Your task to perform on an android device: see creations saved in the google photos Image 0: 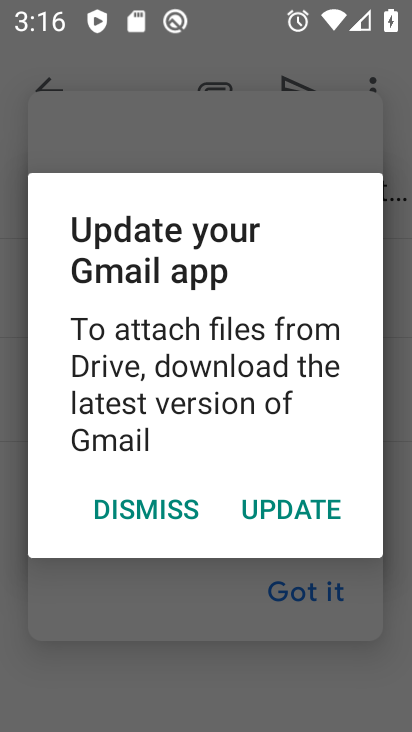
Step 0: press home button
Your task to perform on an android device: see creations saved in the google photos Image 1: 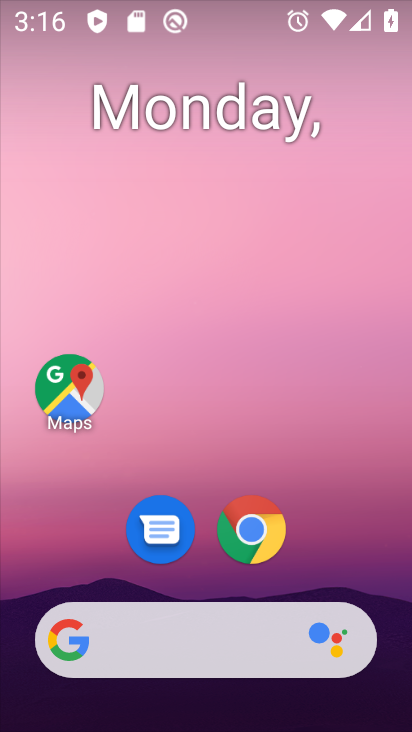
Step 1: drag from (193, 568) to (244, 8)
Your task to perform on an android device: see creations saved in the google photos Image 2: 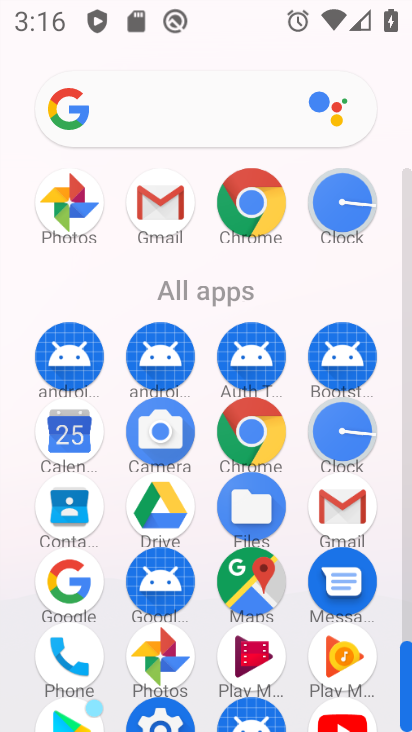
Step 2: click (173, 651)
Your task to perform on an android device: see creations saved in the google photos Image 3: 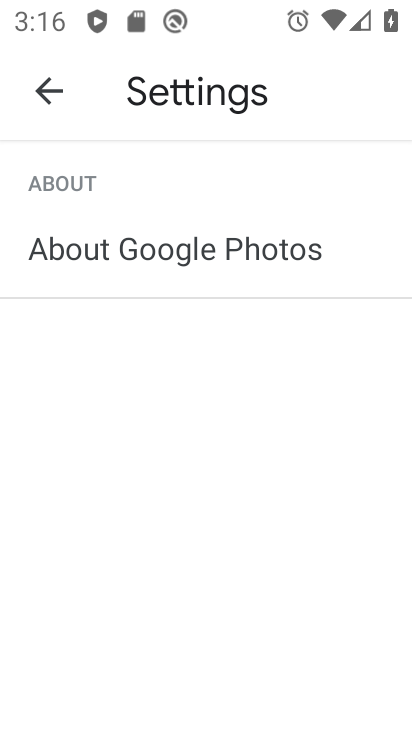
Step 3: click (50, 84)
Your task to perform on an android device: see creations saved in the google photos Image 4: 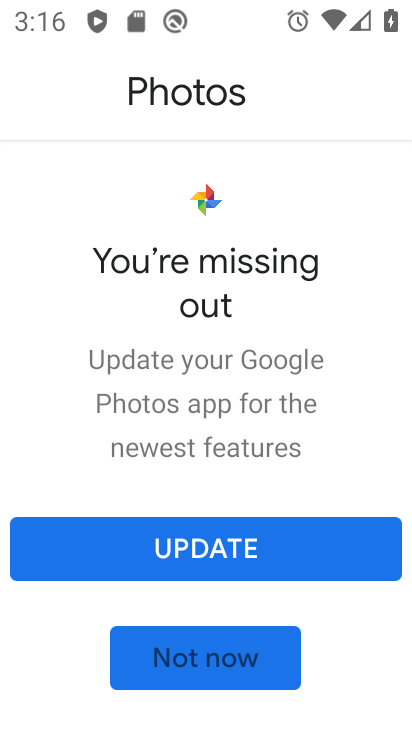
Step 4: click (220, 664)
Your task to perform on an android device: see creations saved in the google photos Image 5: 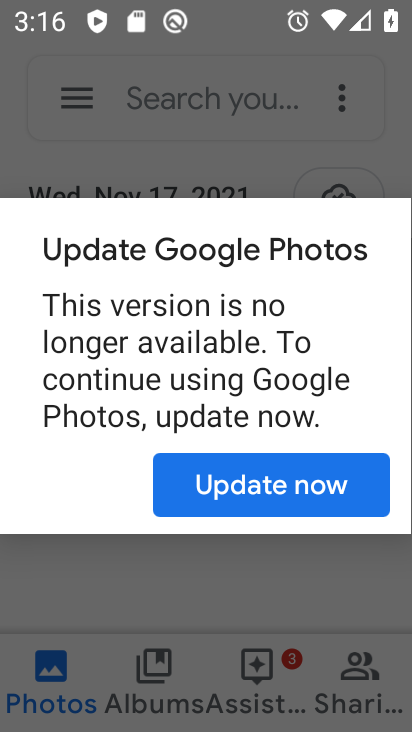
Step 5: click (293, 488)
Your task to perform on an android device: see creations saved in the google photos Image 6: 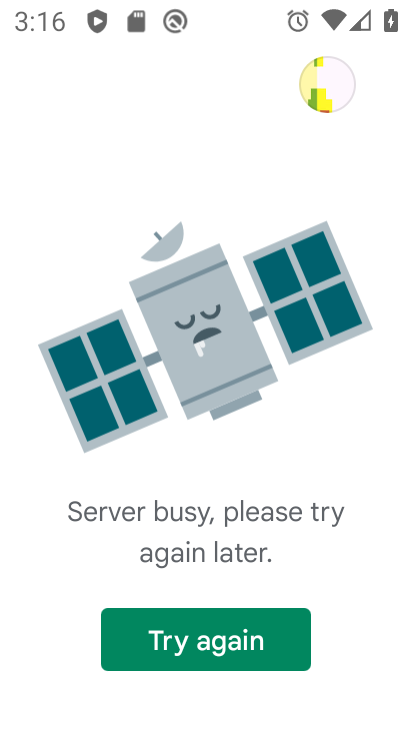
Step 6: press back button
Your task to perform on an android device: see creations saved in the google photos Image 7: 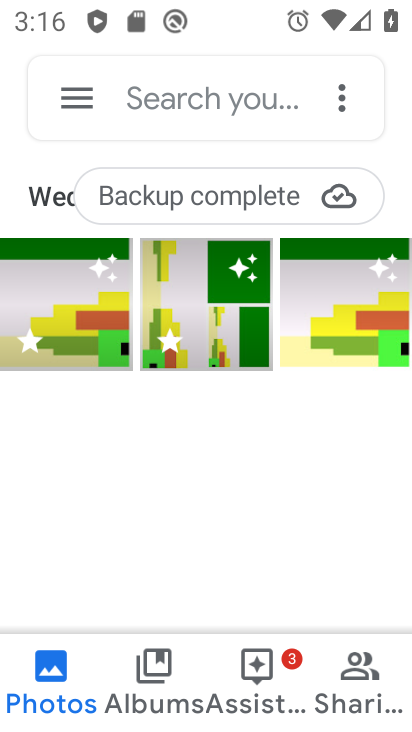
Step 7: click (337, 105)
Your task to perform on an android device: see creations saved in the google photos Image 8: 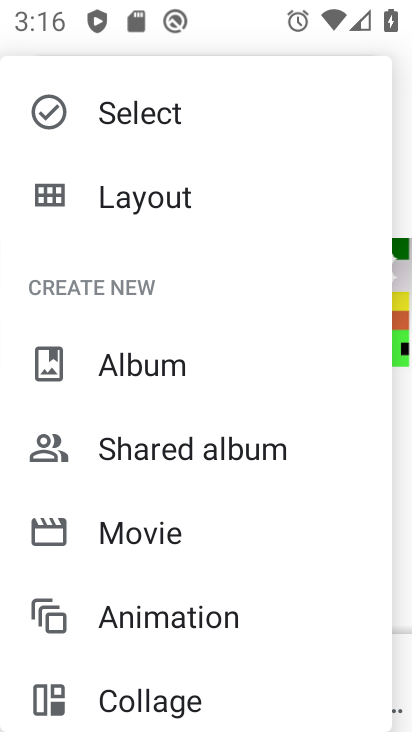
Step 8: drag from (166, 633) to (232, 192)
Your task to perform on an android device: see creations saved in the google photos Image 9: 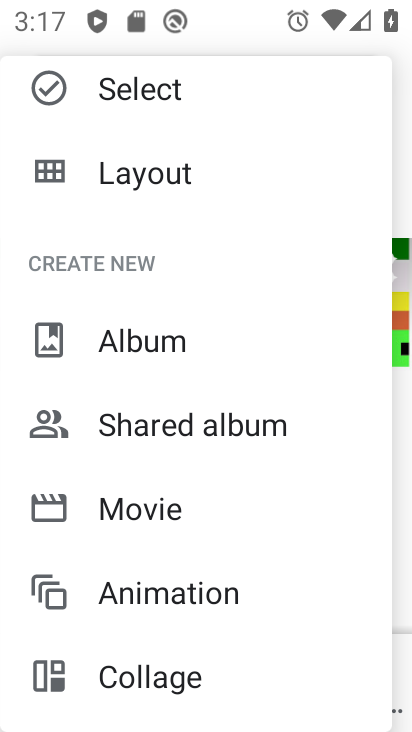
Step 9: click (186, 672)
Your task to perform on an android device: see creations saved in the google photos Image 10: 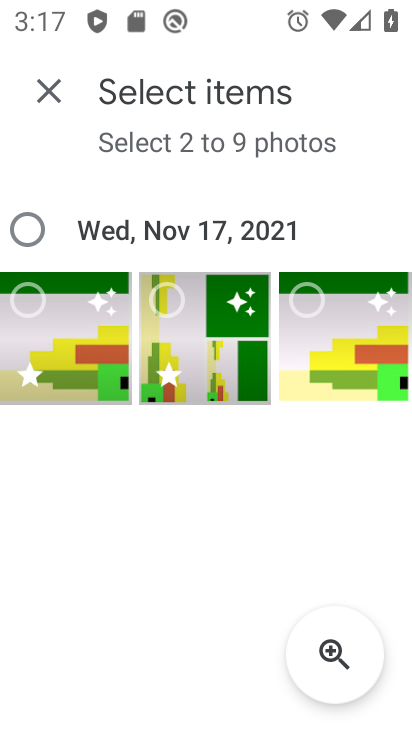
Step 10: click (55, 91)
Your task to perform on an android device: see creations saved in the google photos Image 11: 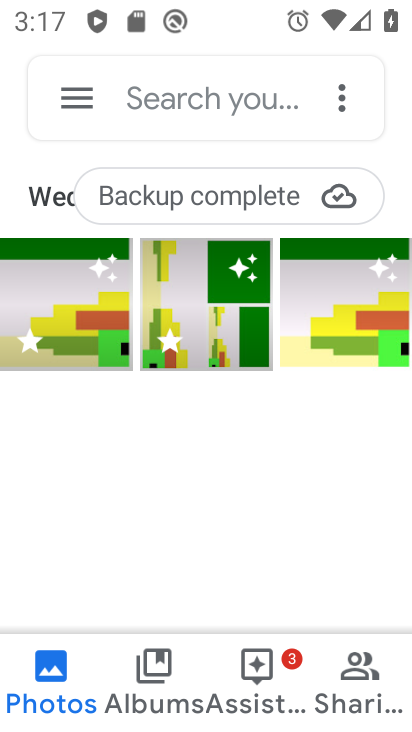
Step 11: click (248, 108)
Your task to perform on an android device: see creations saved in the google photos Image 12: 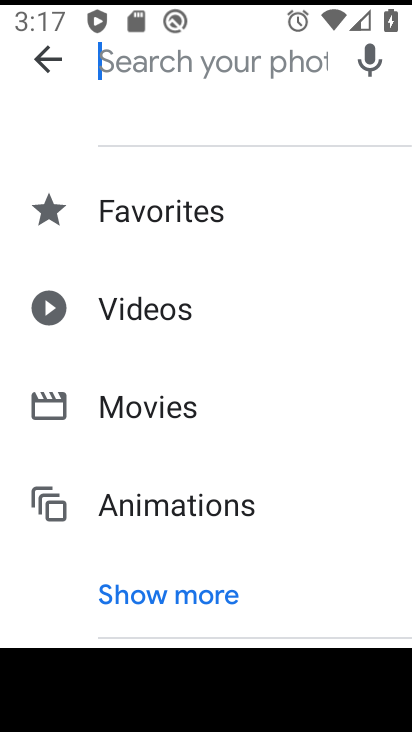
Step 12: type "creations"
Your task to perform on an android device: see creations saved in the google photos Image 13: 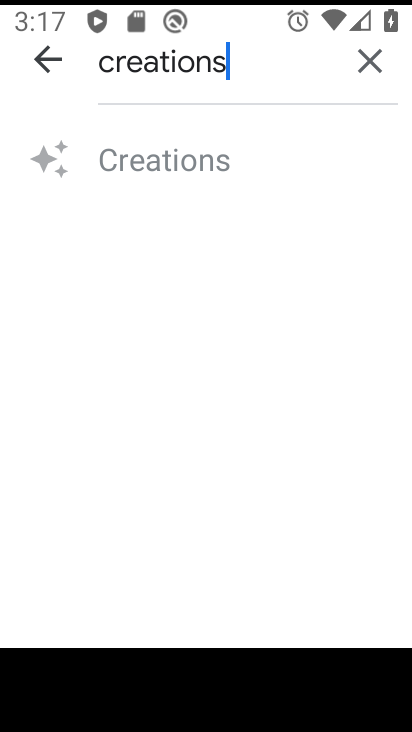
Step 13: click (207, 152)
Your task to perform on an android device: see creations saved in the google photos Image 14: 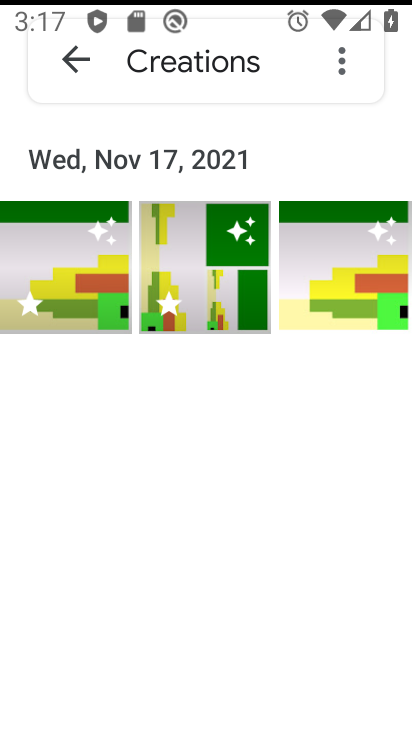
Step 14: click (62, 293)
Your task to perform on an android device: see creations saved in the google photos Image 15: 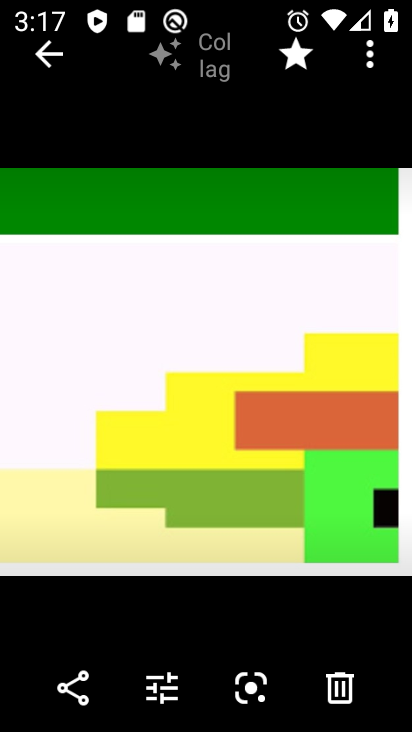
Step 15: task complete